Your task to perform on an android device: delete browsing data in the chrome app Image 0: 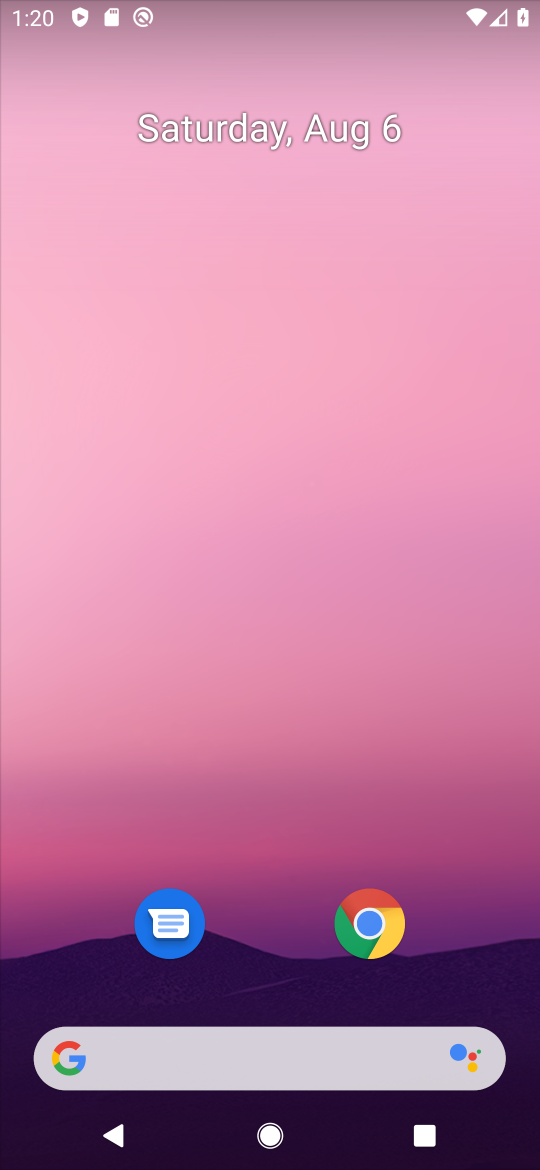
Step 0: drag from (264, 971) to (228, 472)
Your task to perform on an android device: delete browsing data in the chrome app Image 1: 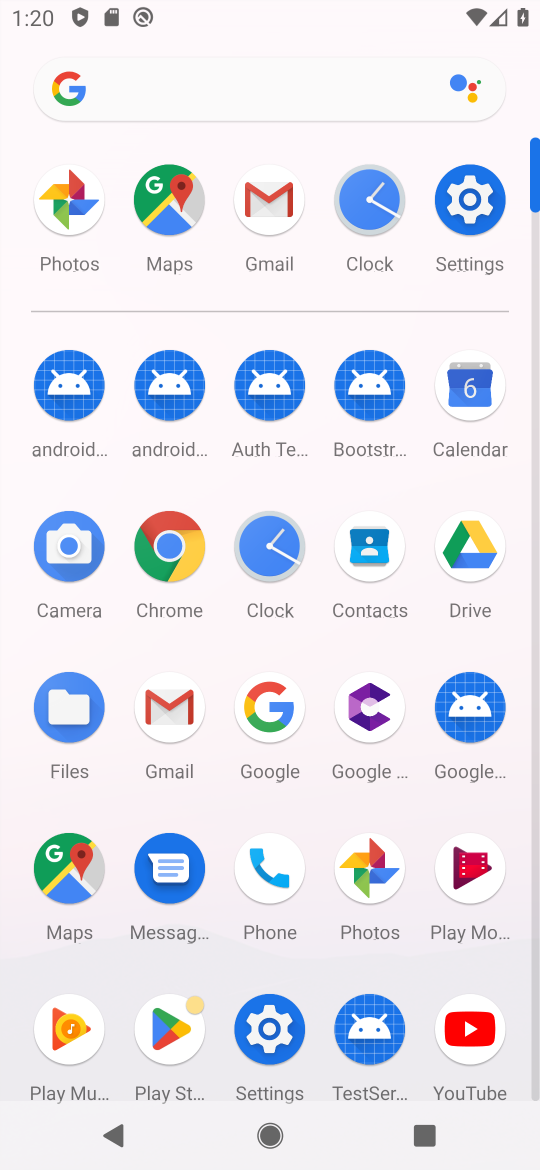
Step 1: click (174, 532)
Your task to perform on an android device: delete browsing data in the chrome app Image 2: 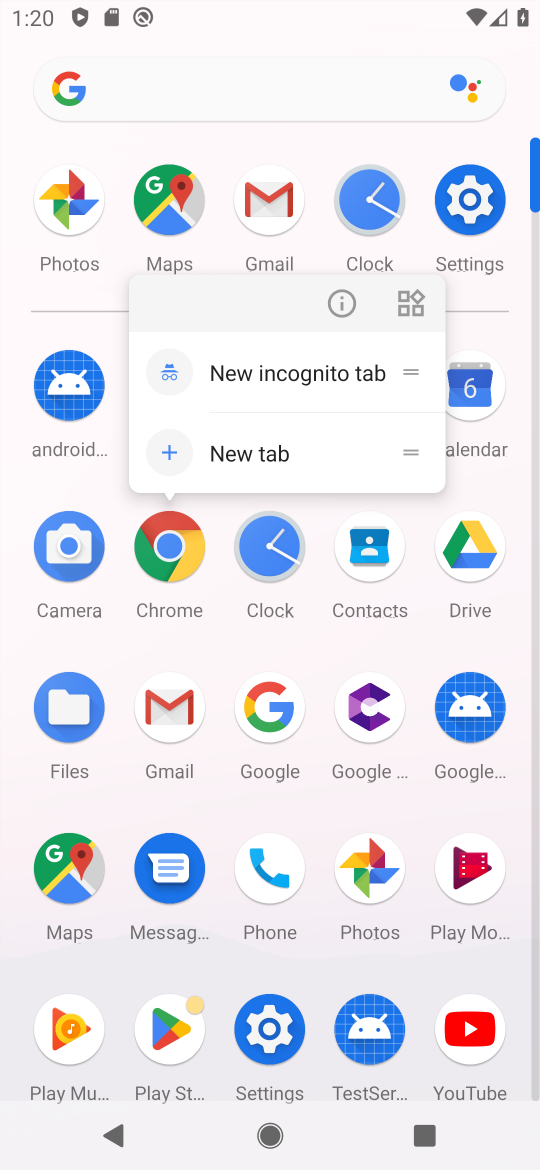
Step 2: click (349, 314)
Your task to perform on an android device: delete browsing data in the chrome app Image 3: 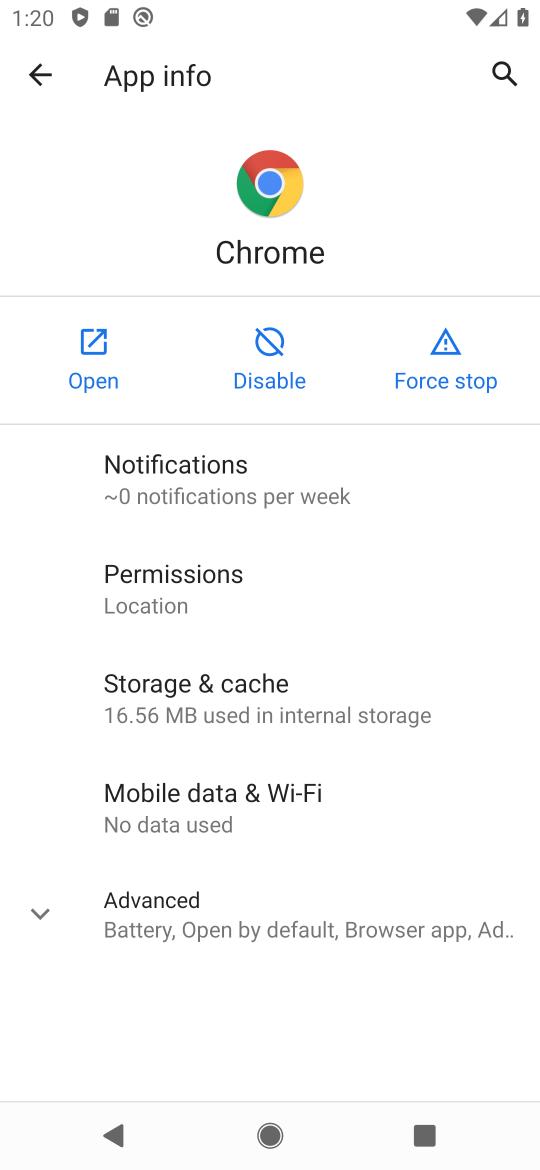
Step 3: click (102, 361)
Your task to perform on an android device: delete browsing data in the chrome app Image 4: 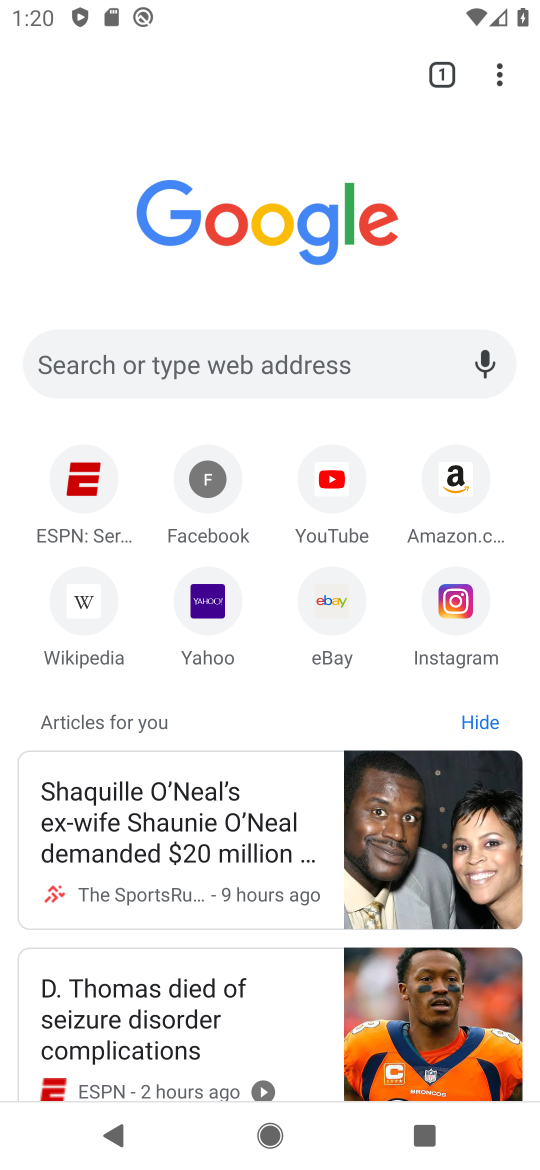
Step 4: drag from (507, 75) to (237, 511)
Your task to perform on an android device: delete browsing data in the chrome app Image 5: 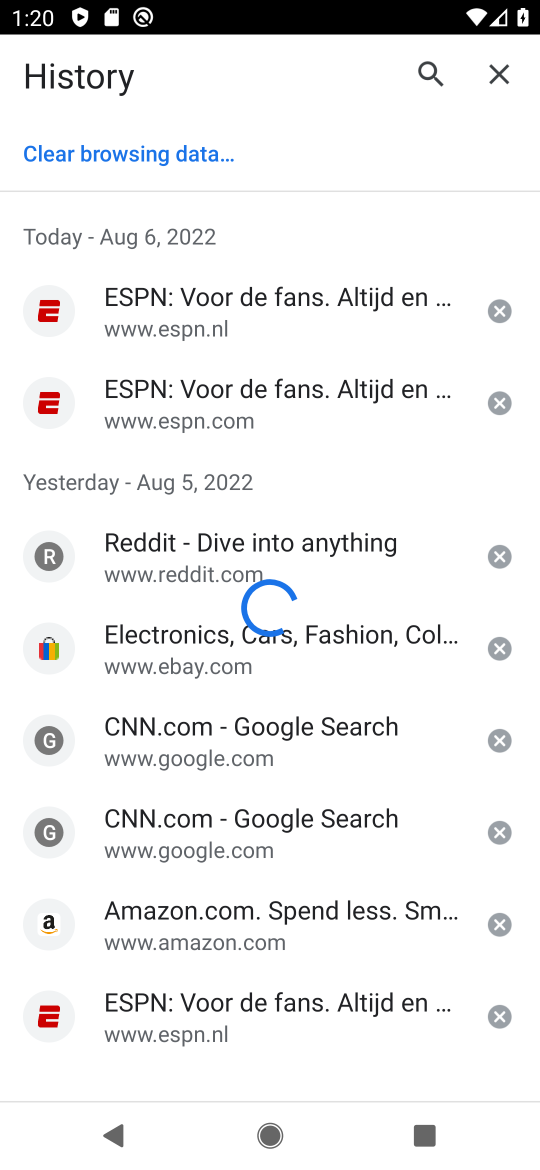
Step 5: drag from (287, 802) to (290, 1165)
Your task to perform on an android device: delete browsing data in the chrome app Image 6: 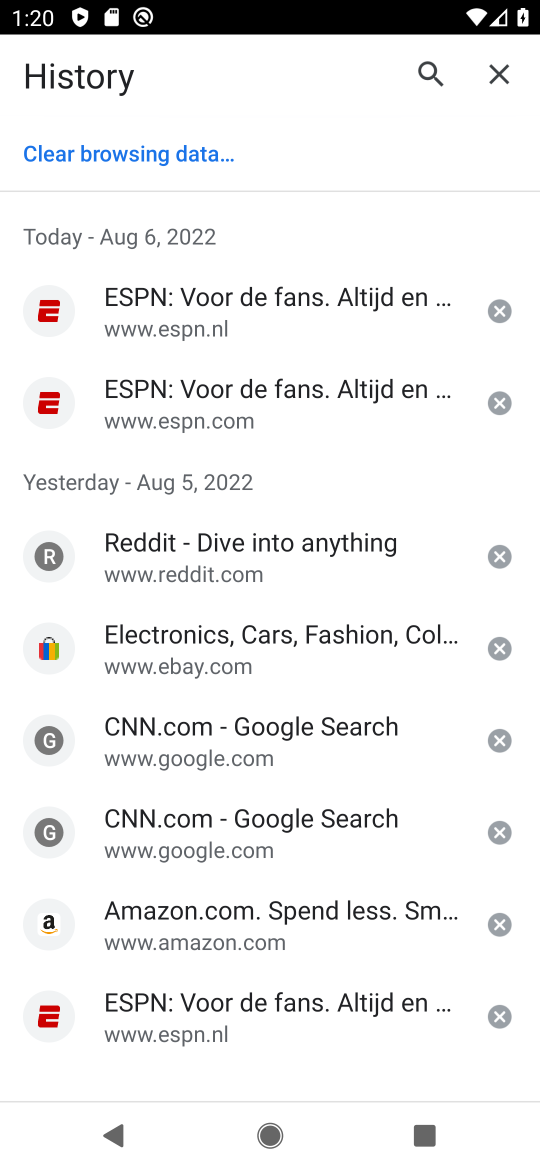
Step 6: click (94, 144)
Your task to perform on an android device: delete browsing data in the chrome app Image 7: 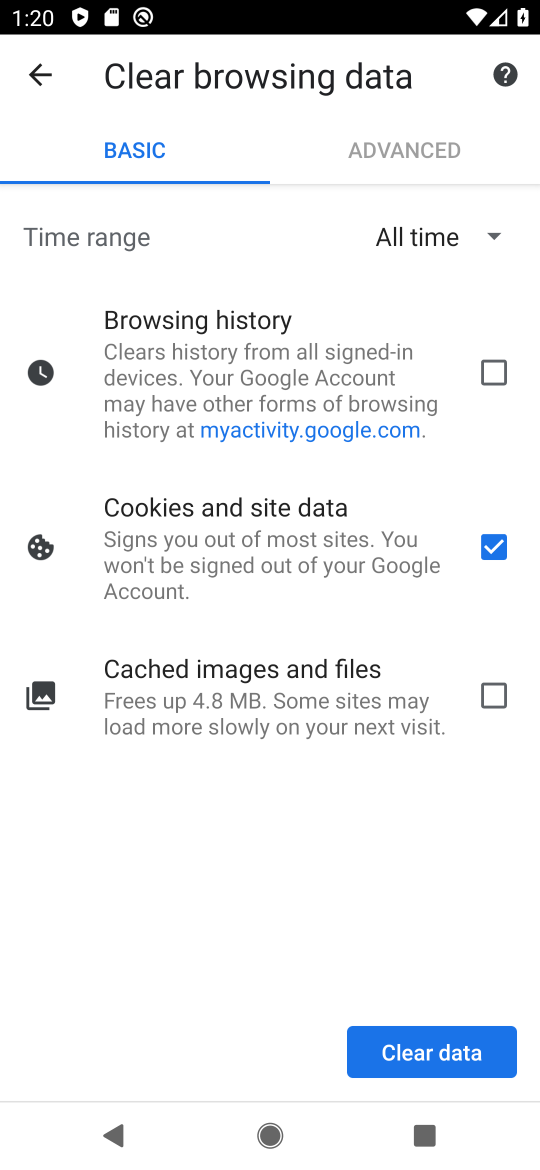
Step 7: drag from (305, 844) to (274, 372)
Your task to perform on an android device: delete browsing data in the chrome app Image 8: 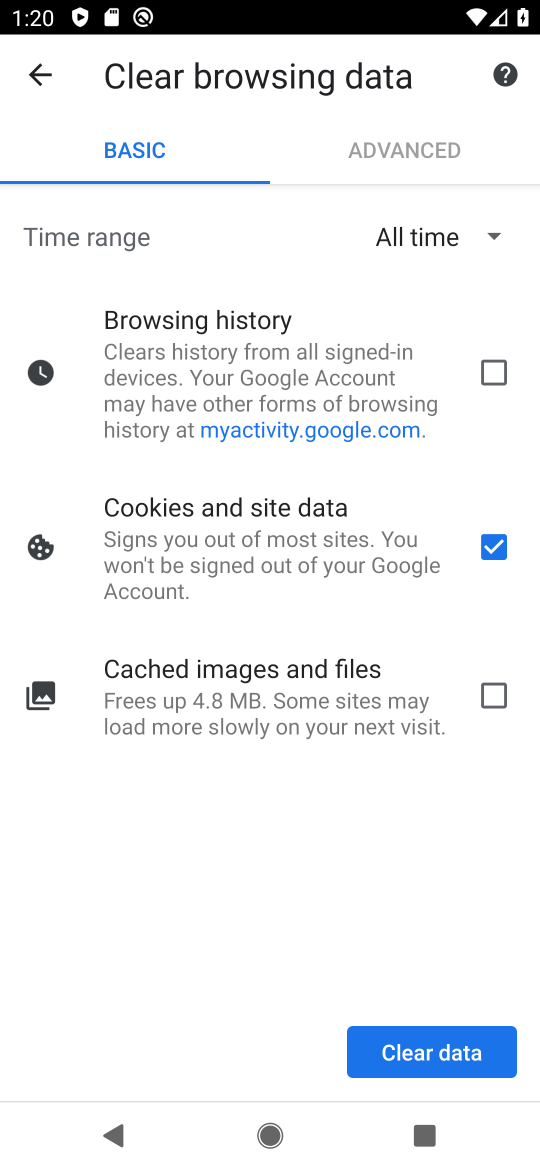
Step 8: click (477, 367)
Your task to perform on an android device: delete browsing data in the chrome app Image 9: 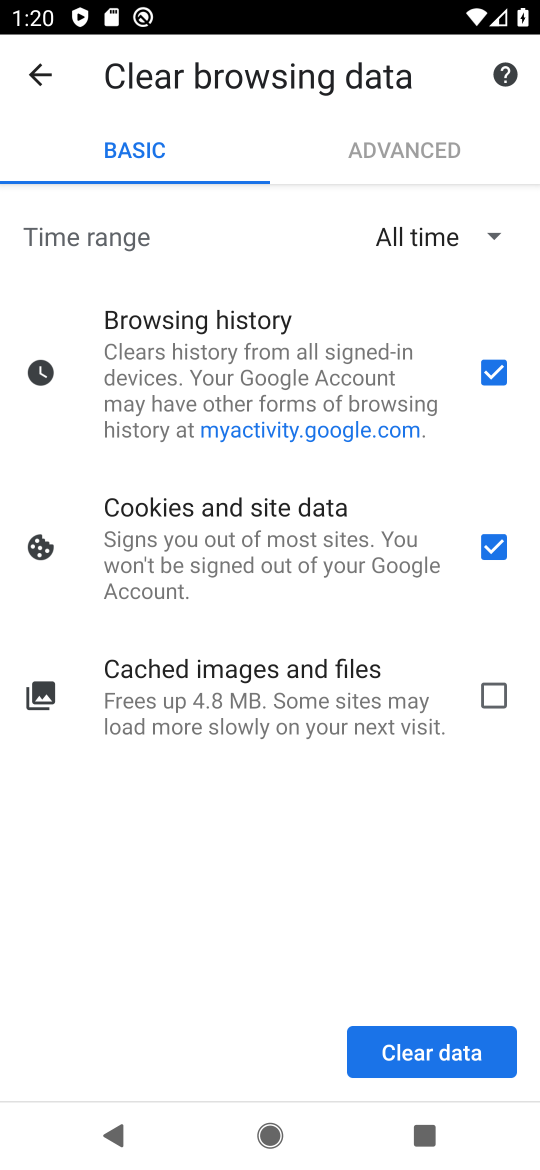
Step 9: click (489, 692)
Your task to perform on an android device: delete browsing data in the chrome app Image 10: 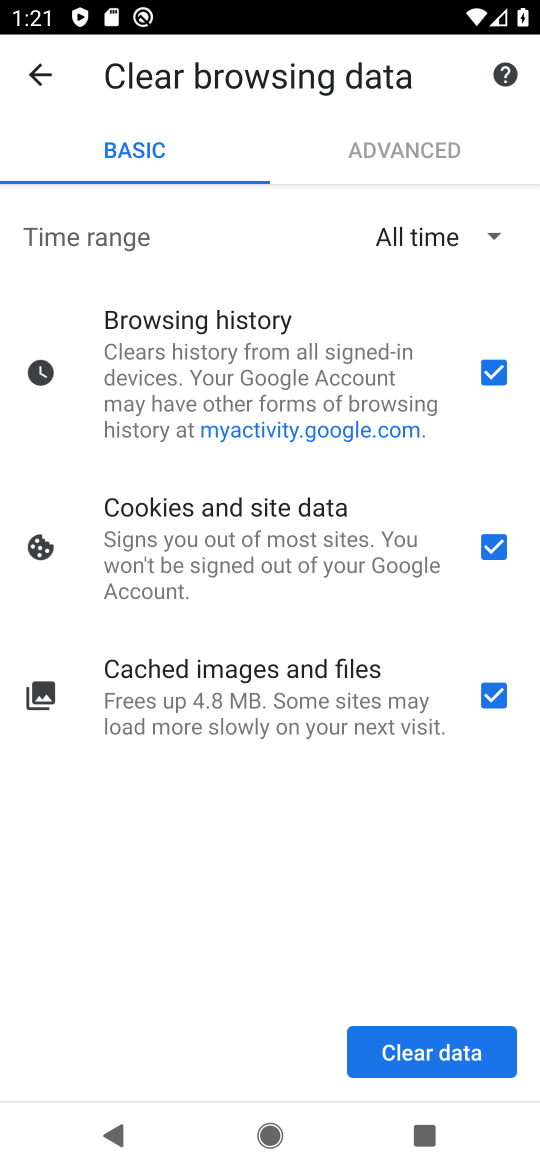
Step 10: click (404, 1041)
Your task to perform on an android device: delete browsing data in the chrome app Image 11: 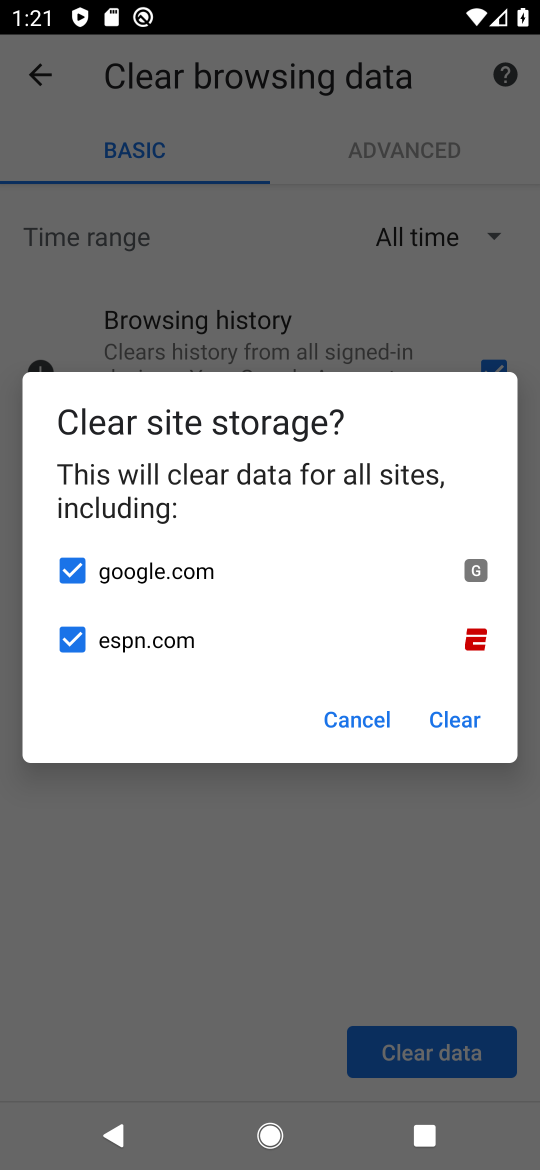
Step 11: click (452, 725)
Your task to perform on an android device: delete browsing data in the chrome app Image 12: 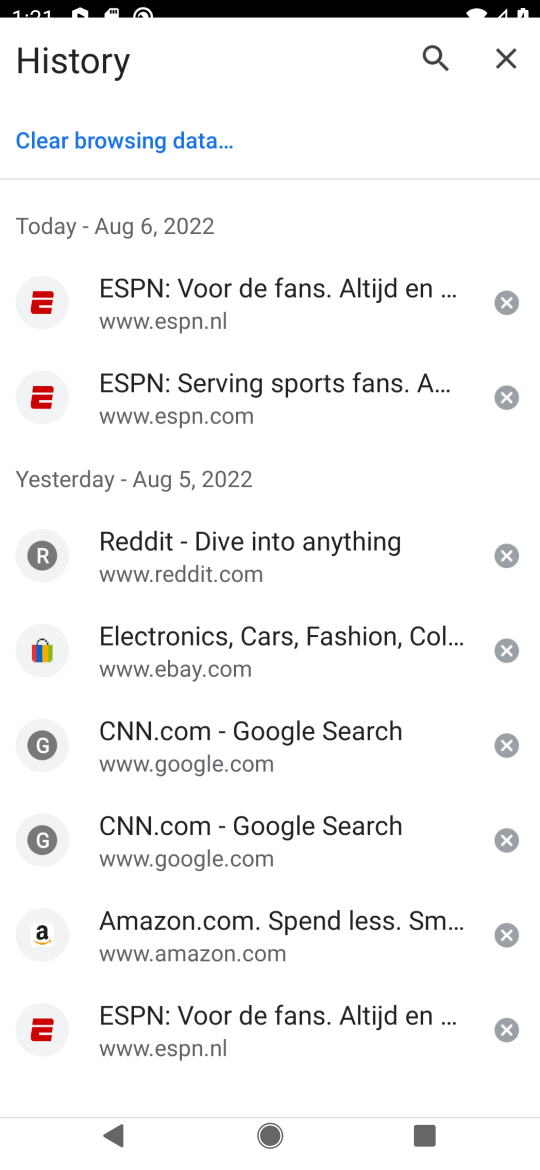
Step 12: task complete